Your task to perform on an android device: Go to Amazon Image 0: 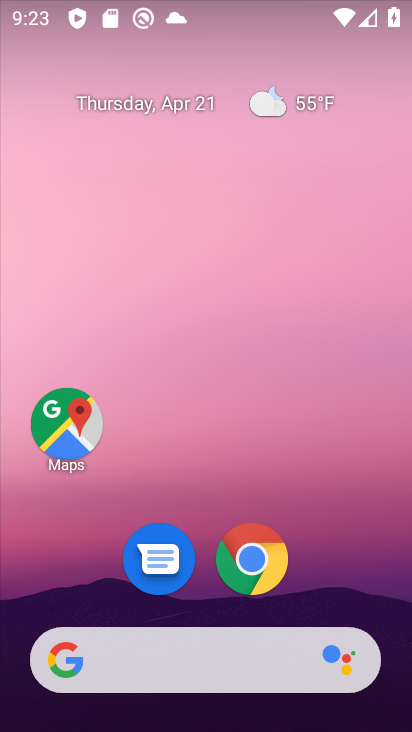
Step 0: click (271, 556)
Your task to perform on an android device: Go to Amazon Image 1: 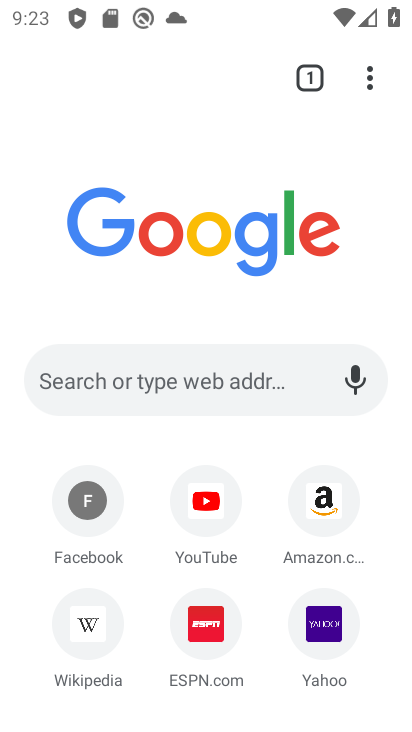
Step 1: click (331, 524)
Your task to perform on an android device: Go to Amazon Image 2: 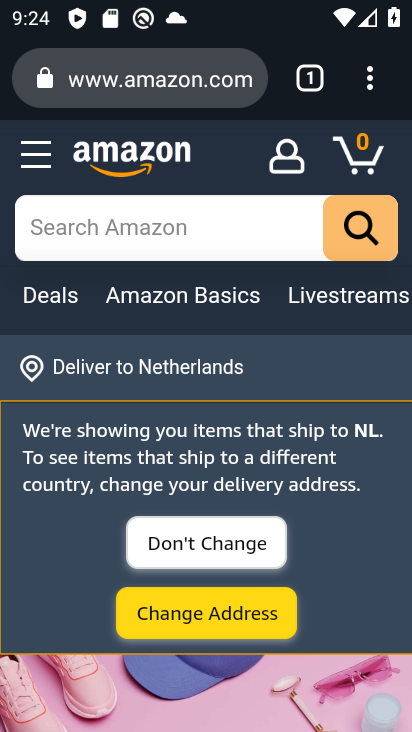
Step 2: task complete